Your task to perform on an android device: Set the phone to "Do not disturb". Image 0: 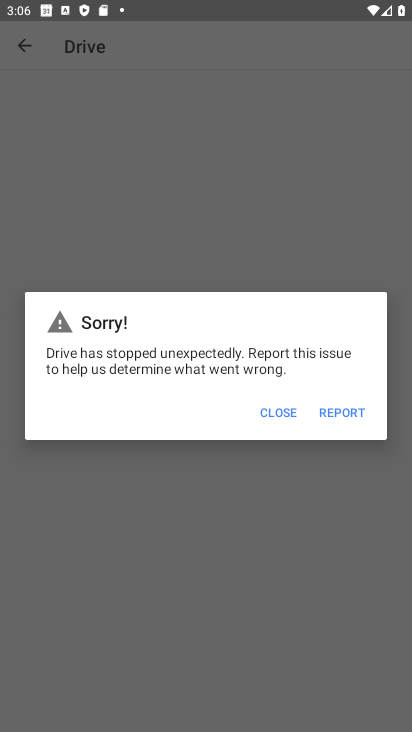
Step 0: press home button
Your task to perform on an android device: Set the phone to "Do not disturb". Image 1: 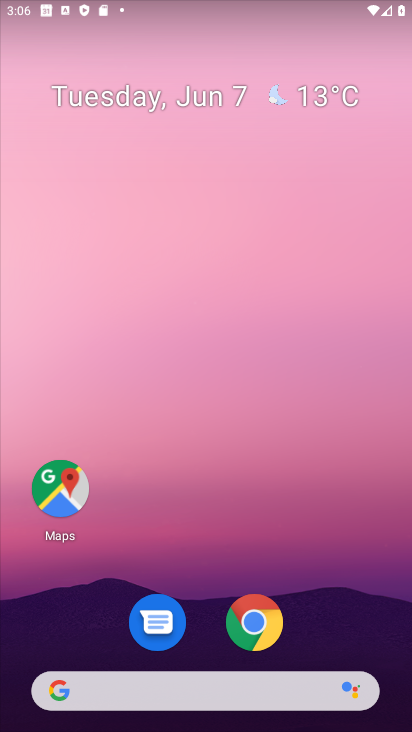
Step 1: drag from (310, 595) to (240, 78)
Your task to perform on an android device: Set the phone to "Do not disturb". Image 2: 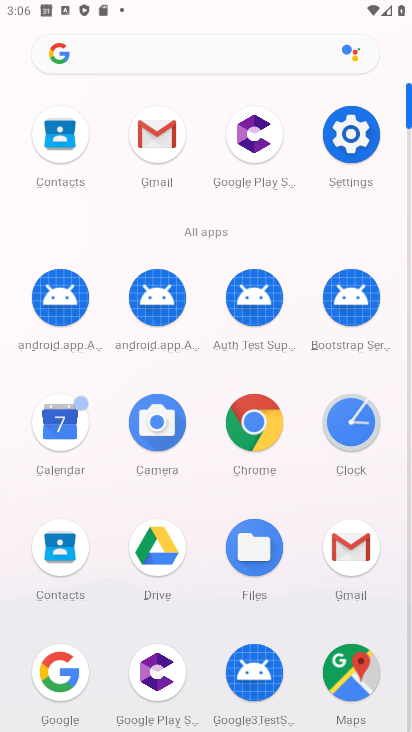
Step 2: click (356, 140)
Your task to perform on an android device: Set the phone to "Do not disturb". Image 3: 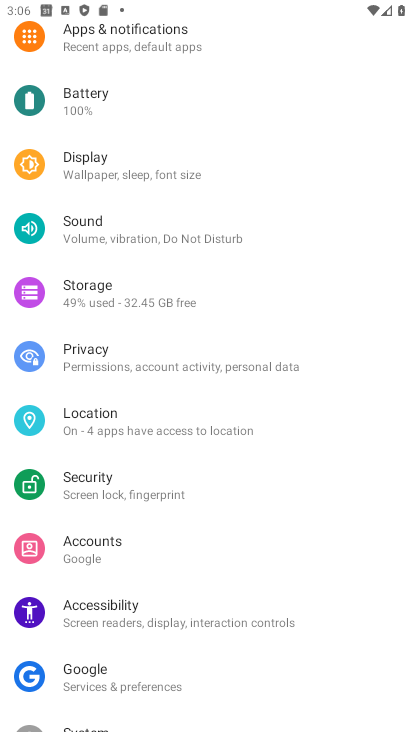
Step 3: click (137, 233)
Your task to perform on an android device: Set the phone to "Do not disturb". Image 4: 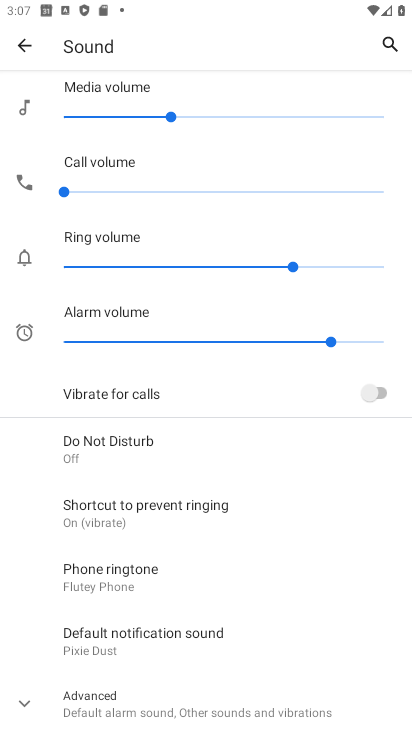
Step 4: click (165, 450)
Your task to perform on an android device: Set the phone to "Do not disturb". Image 5: 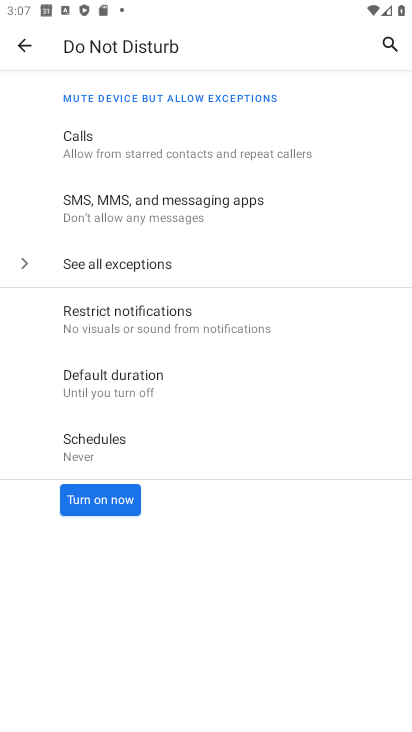
Step 5: click (113, 502)
Your task to perform on an android device: Set the phone to "Do not disturb". Image 6: 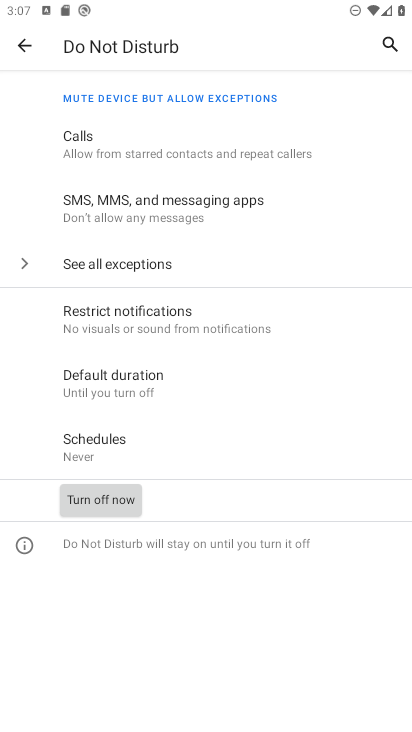
Step 6: task complete